Your task to perform on an android device: check data usage Image 0: 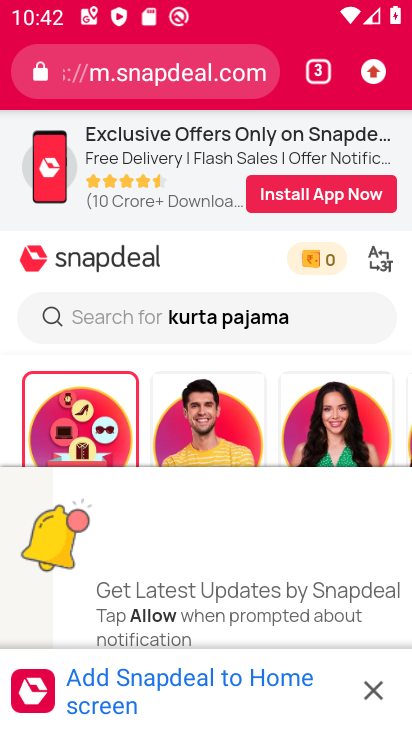
Step 0: press home button
Your task to perform on an android device: check data usage Image 1: 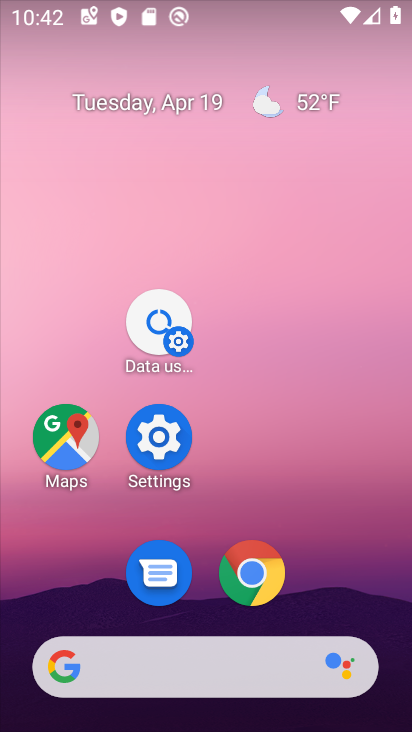
Step 1: click (155, 433)
Your task to perform on an android device: check data usage Image 2: 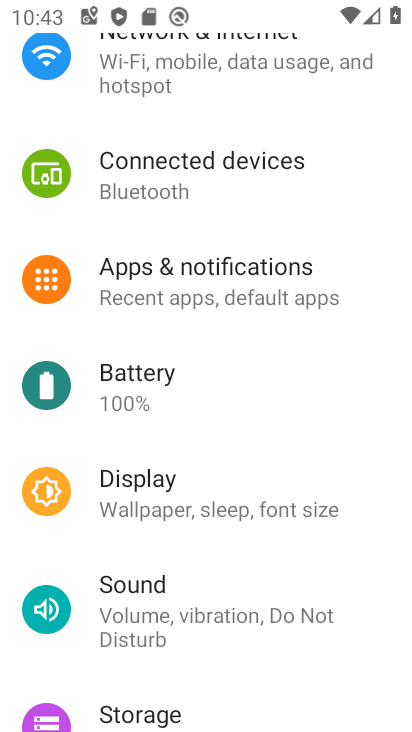
Step 2: click (179, 60)
Your task to perform on an android device: check data usage Image 3: 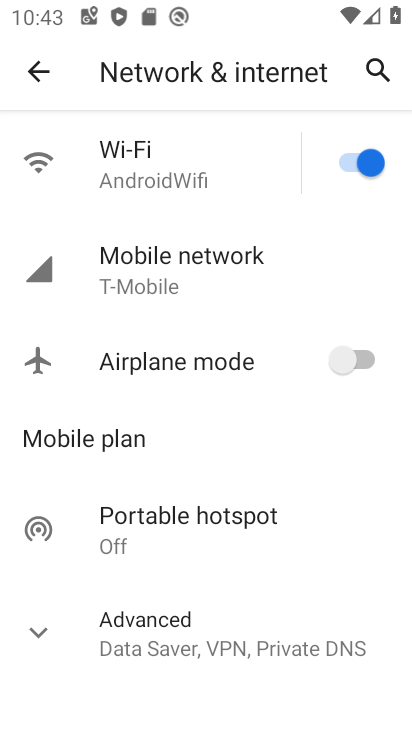
Step 3: click (126, 257)
Your task to perform on an android device: check data usage Image 4: 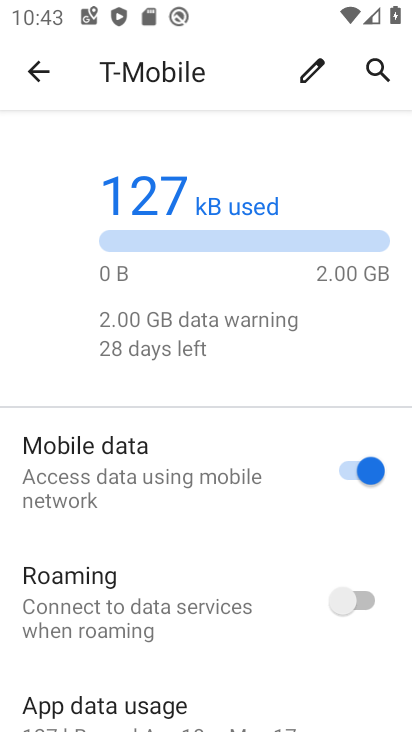
Step 4: click (105, 716)
Your task to perform on an android device: check data usage Image 5: 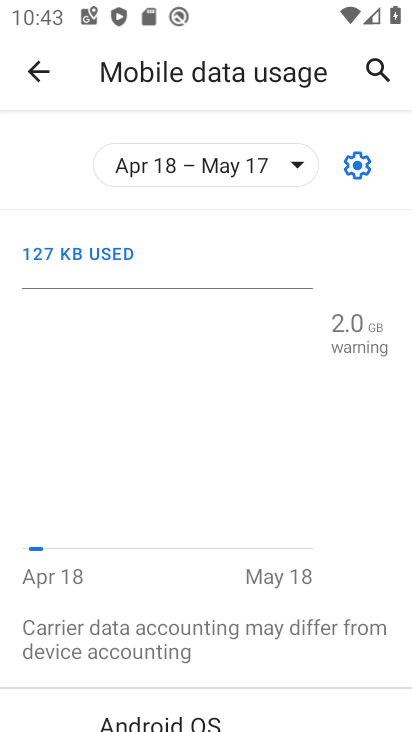
Step 5: task complete